Your task to perform on an android device: delete location history Image 0: 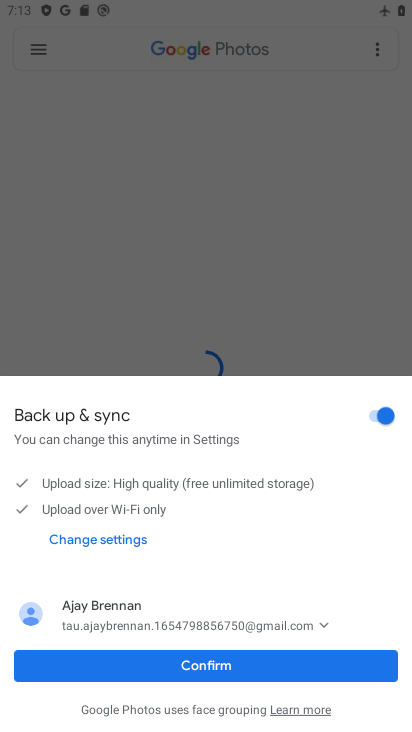
Step 0: press home button
Your task to perform on an android device: delete location history Image 1: 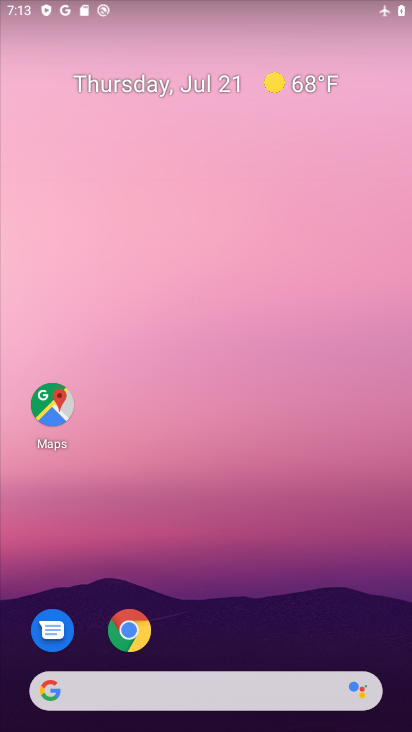
Step 1: drag from (201, 487) to (182, 4)
Your task to perform on an android device: delete location history Image 2: 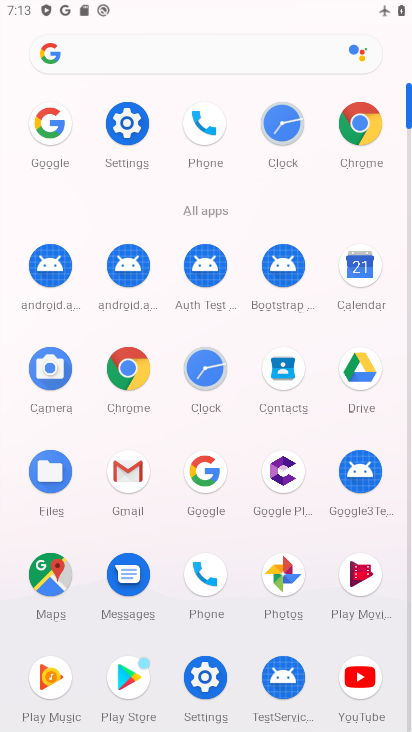
Step 2: click (54, 601)
Your task to perform on an android device: delete location history Image 3: 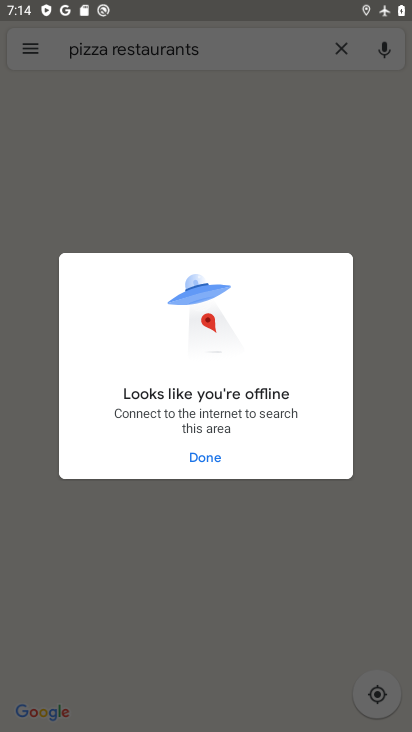
Step 3: click (275, 574)
Your task to perform on an android device: delete location history Image 4: 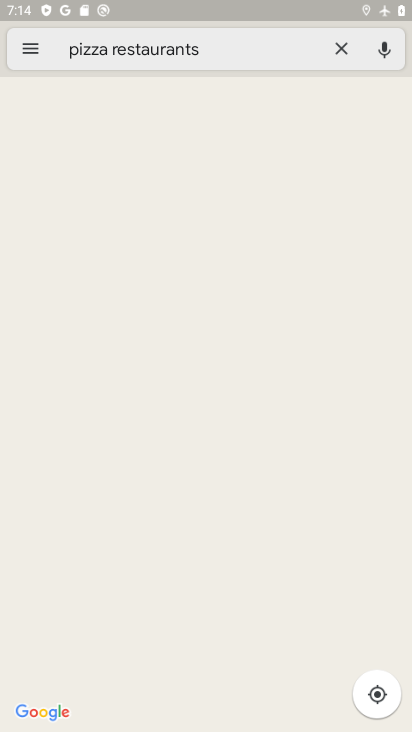
Step 4: click (26, 45)
Your task to perform on an android device: delete location history Image 5: 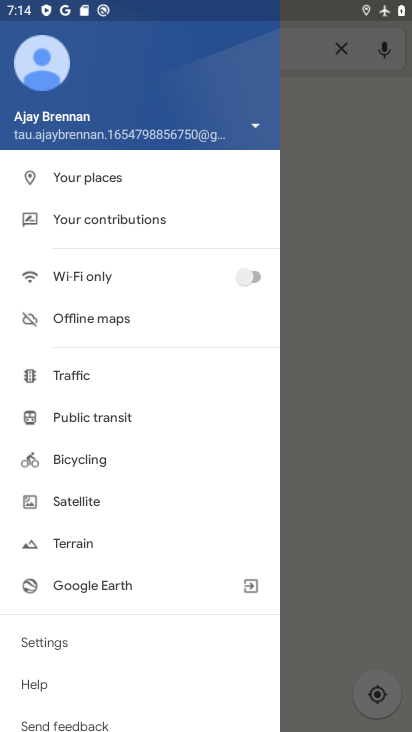
Step 5: task complete